Your task to perform on an android device: Open my contact list Image 0: 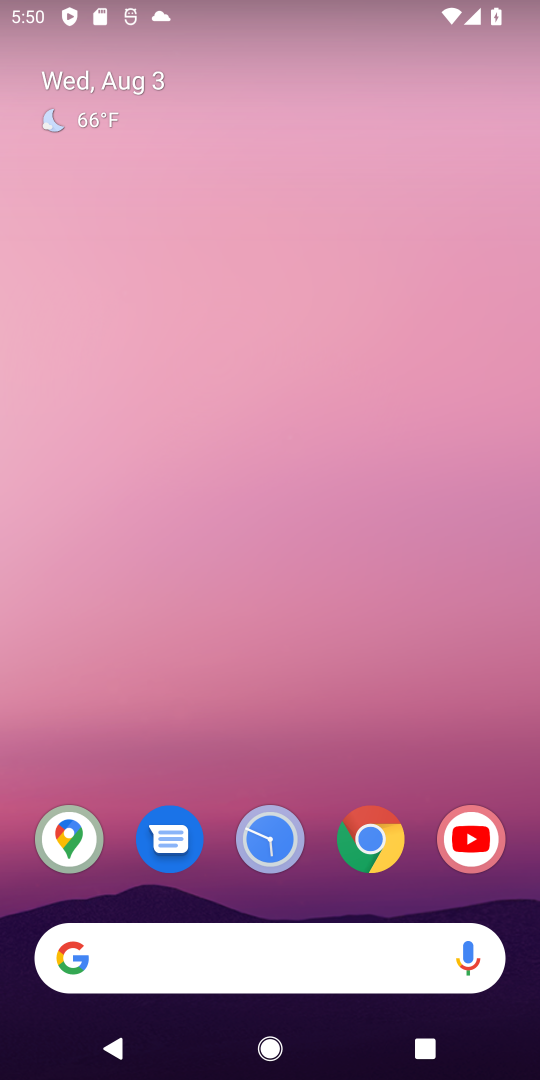
Step 0: drag from (291, 544) to (379, 22)
Your task to perform on an android device: Open my contact list Image 1: 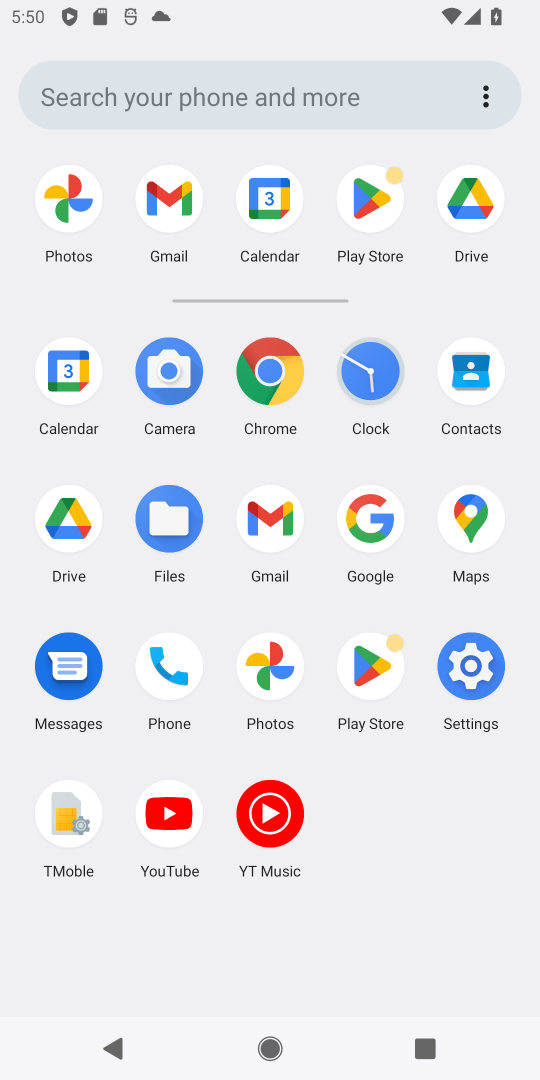
Step 1: click (474, 378)
Your task to perform on an android device: Open my contact list Image 2: 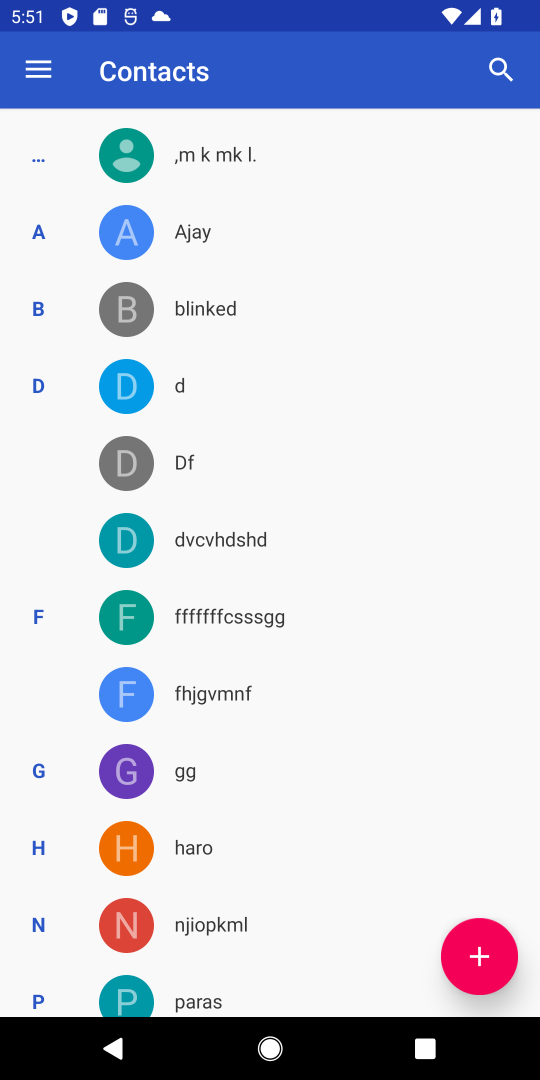
Step 2: task complete